Your task to perform on an android device: find snoozed emails in the gmail app Image 0: 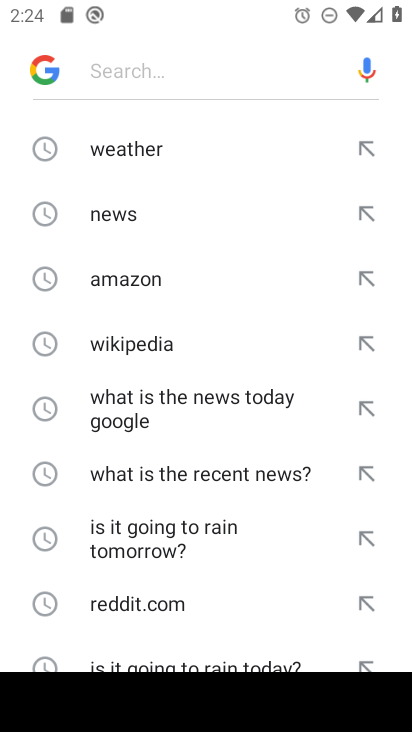
Step 0: press home button
Your task to perform on an android device: find snoozed emails in the gmail app Image 1: 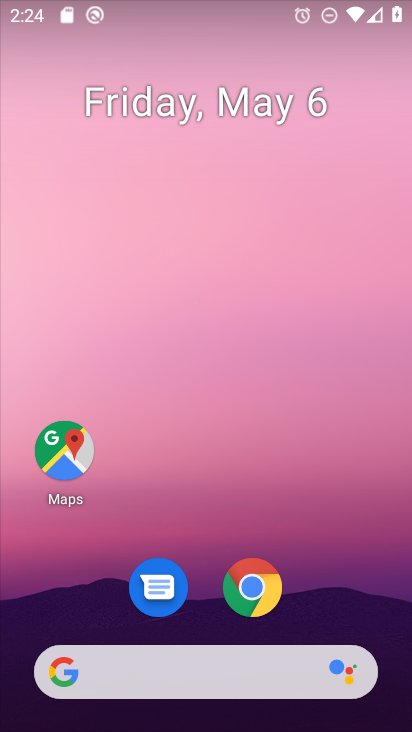
Step 1: drag from (223, 528) to (248, 92)
Your task to perform on an android device: find snoozed emails in the gmail app Image 2: 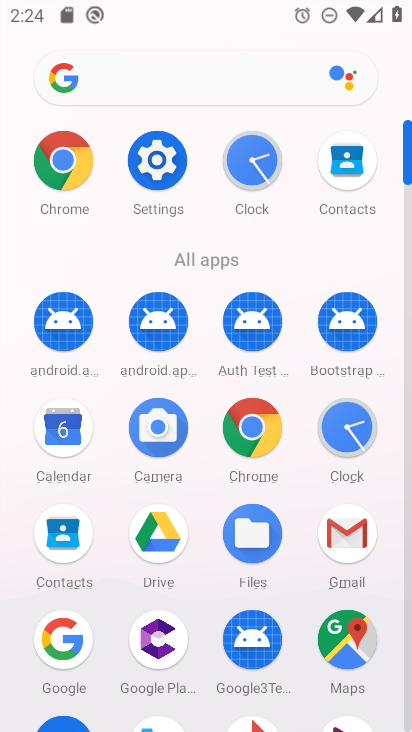
Step 2: click (341, 547)
Your task to perform on an android device: find snoozed emails in the gmail app Image 3: 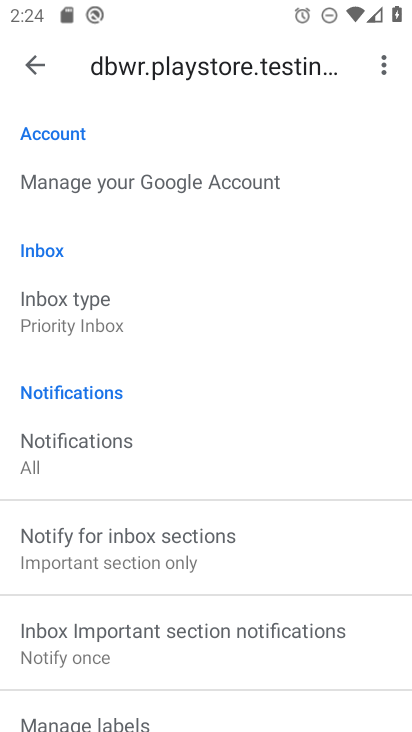
Step 3: click (39, 61)
Your task to perform on an android device: find snoozed emails in the gmail app Image 4: 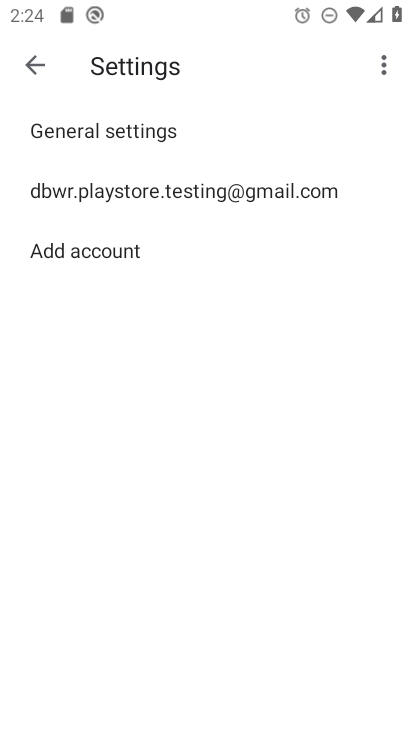
Step 4: click (39, 63)
Your task to perform on an android device: find snoozed emails in the gmail app Image 5: 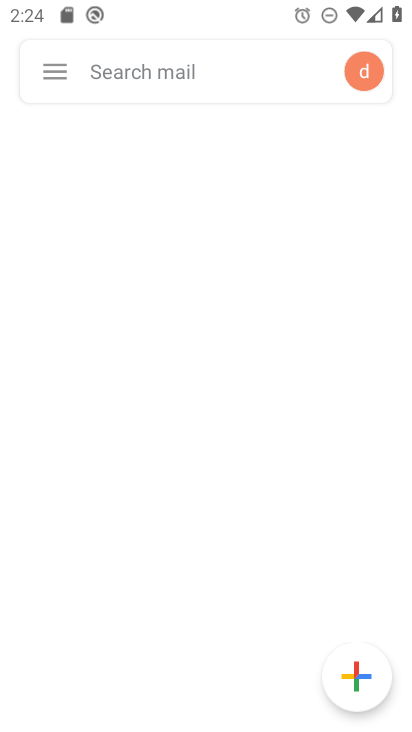
Step 5: click (42, 71)
Your task to perform on an android device: find snoozed emails in the gmail app Image 6: 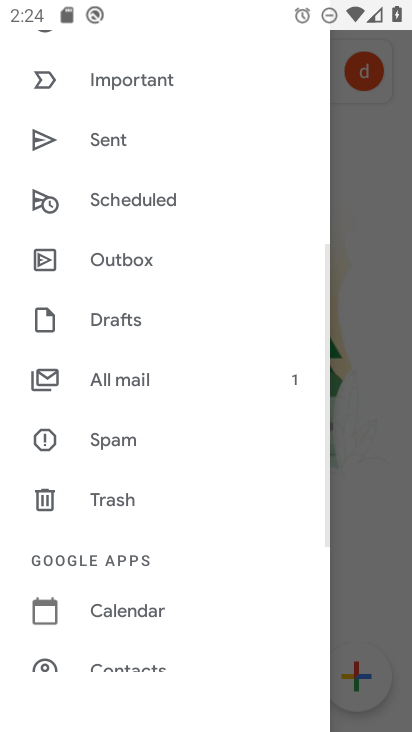
Step 6: drag from (145, 174) to (138, 640)
Your task to perform on an android device: find snoozed emails in the gmail app Image 7: 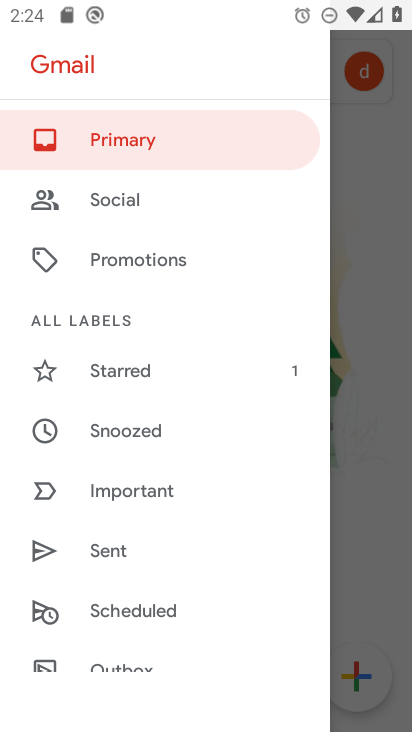
Step 7: click (141, 433)
Your task to perform on an android device: find snoozed emails in the gmail app Image 8: 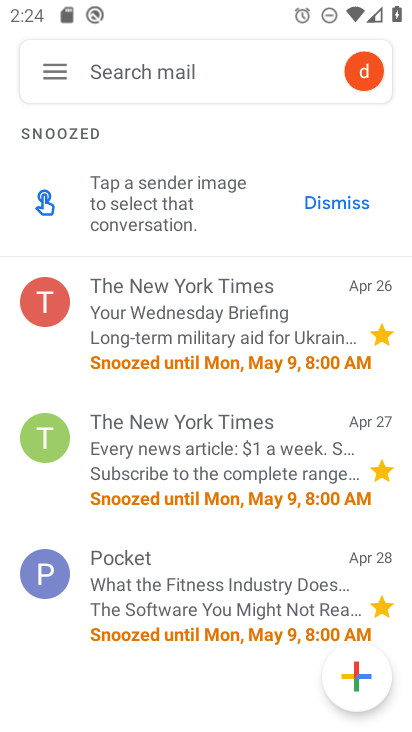
Step 8: task complete